Your task to perform on an android device: turn notification dots on Image 0: 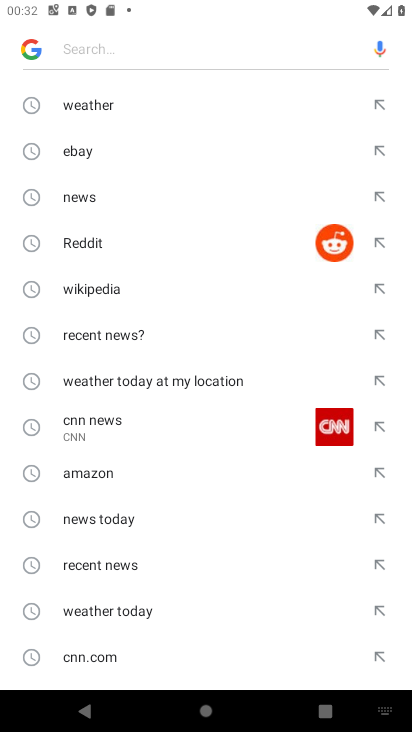
Step 0: press home button
Your task to perform on an android device: turn notification dots on Image 1: 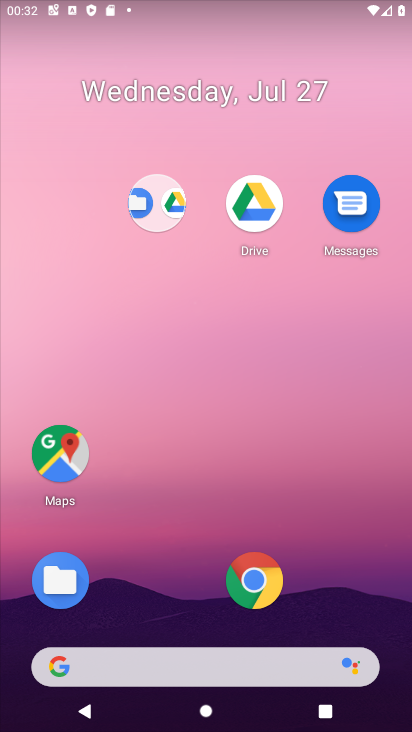
Step 1: drag from (115, 638) to (163, 138)
Your task to perform on an android device: turn notification dots on Image 2: 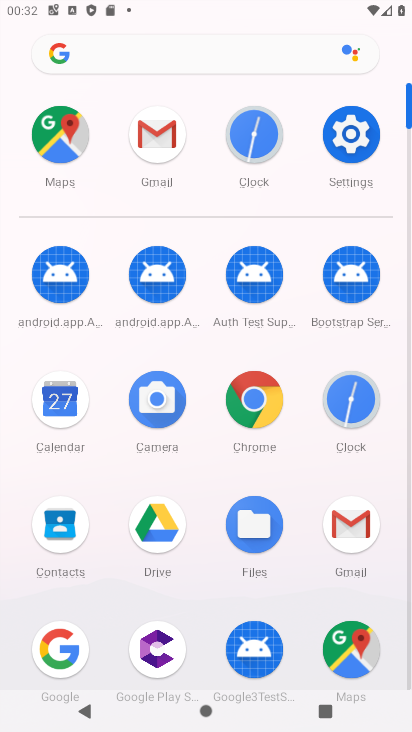
Step 2: click (366, 152)
Your task to perform on an android device: turn notification dots on Image 3: 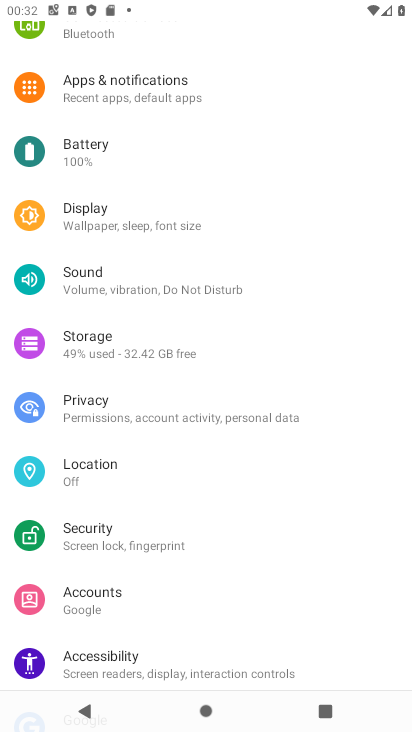
Step 3: click (133, 104)
Your task to perform on an android device: turn notification dots on Image 4: 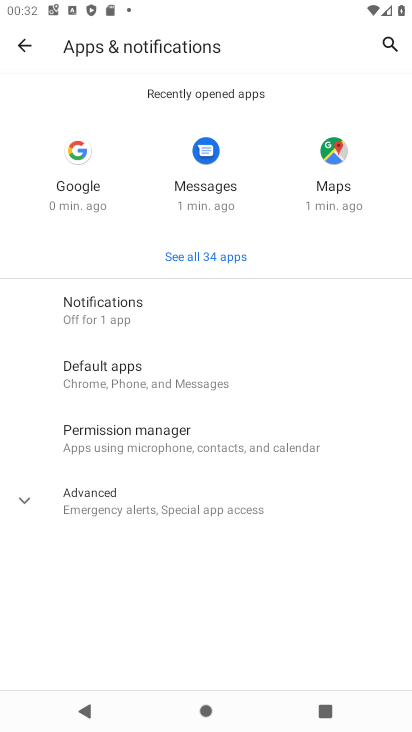
Step 4: click (95, 312)
Your task to perform on an android device: turn notification dots on Image 5: 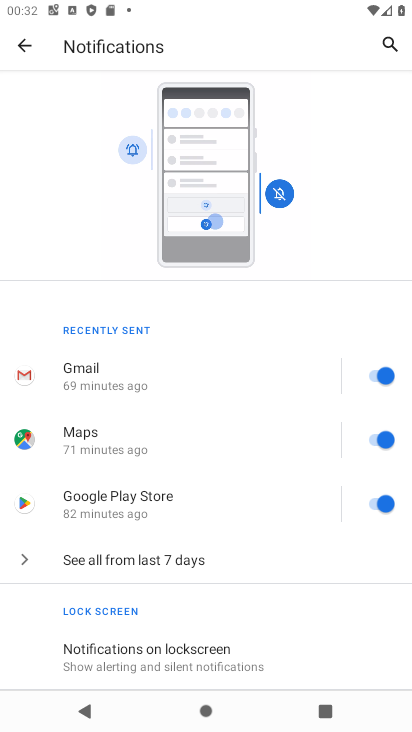
Step 5: drag from (150, 630) to (187, 283)
Your task to perform on an android device: turn notification dots on Image 6: 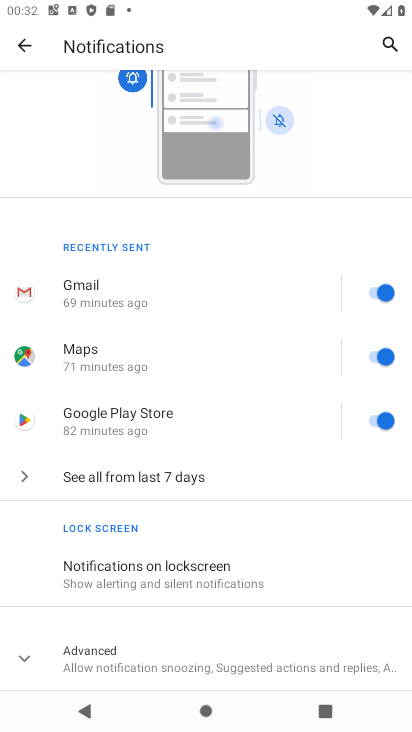
Step 6: click (111, 659)
Your task to perform on an android device: turn notification dots on Image 7: 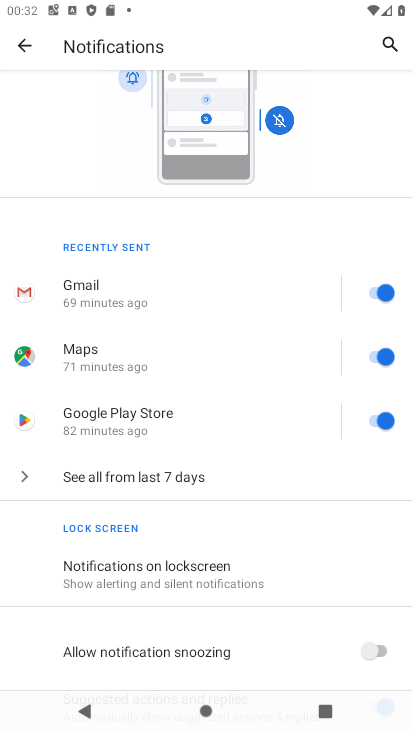
Step 7: task complete